Your task to perform on an android device: turn off notifications in google photos Image 0: 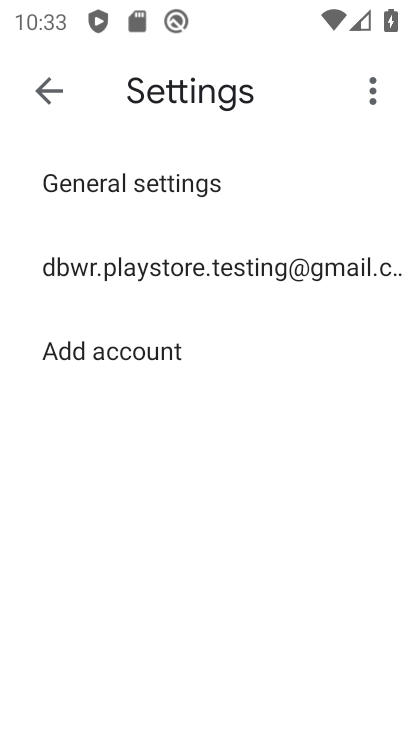
Step 0: press home button
Your task to perform on an android device: turn off notifications in google photos Image 1: 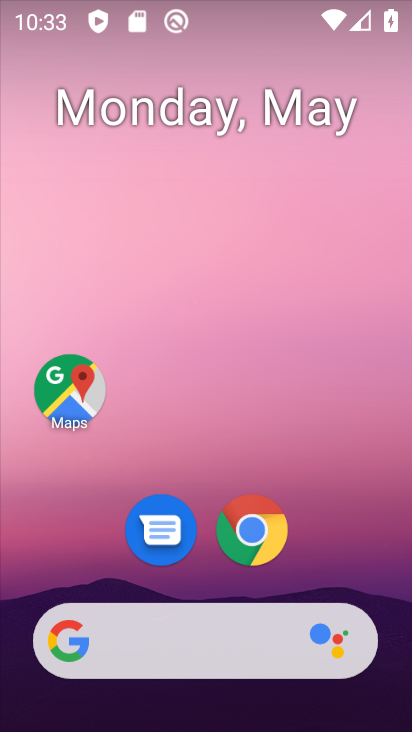
Step 1: drag from (322, 482) to (345, 52)
Your task to perform on an android device: turn off notifications in google photos Image 2: 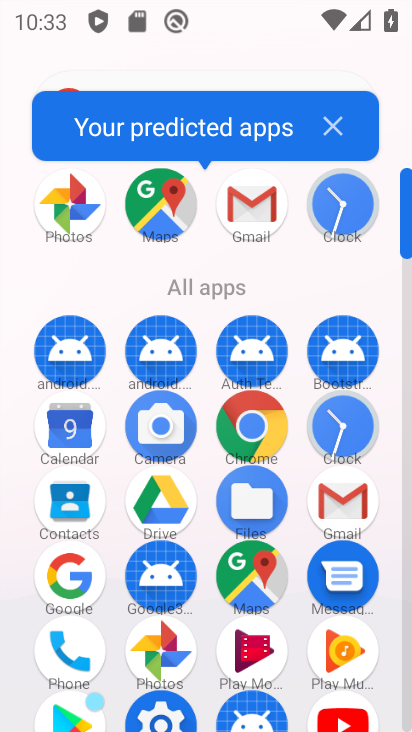
Step 2: drag from (198, 608) to (215, 256)
Your task to perform on an android device: turn off notifications in google photos Image 3: 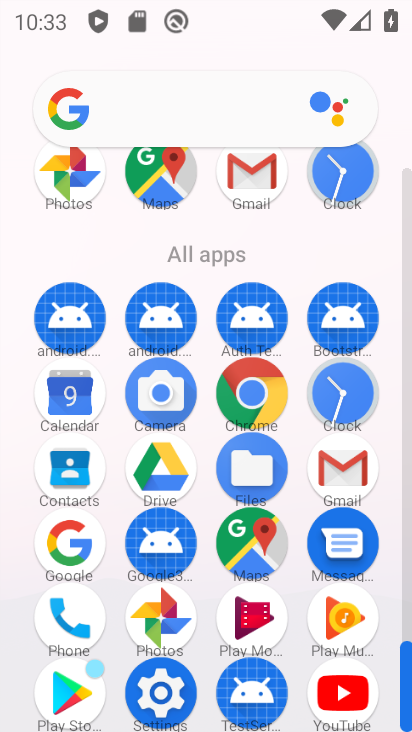
Step 3: click (166, 602)
Your task to perform on an android device: turn off notifications in google photos Image 4: 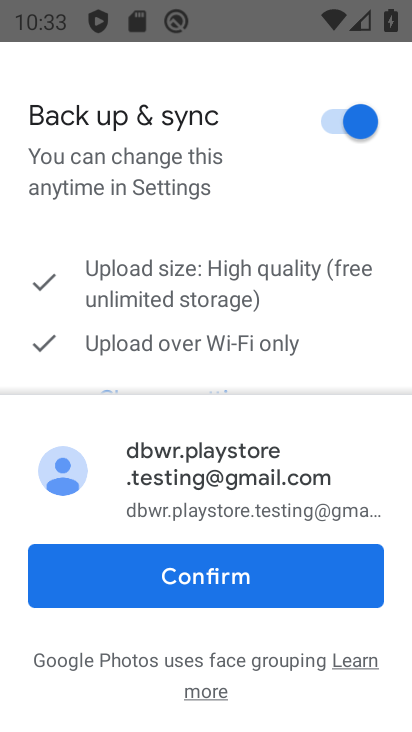
Step 4: click (341, 578)
Your task to perform on an android device: turn off notifications in google photos Image 5: 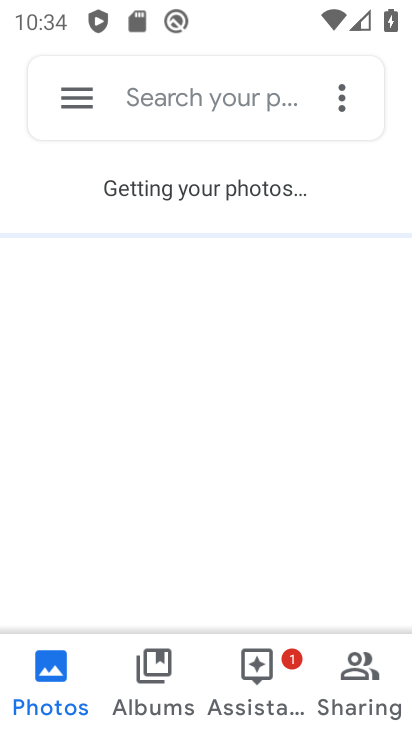
Step 5: click (80, 97)
Your task to perform on an android device: turn off notifications in google photos Image 6: 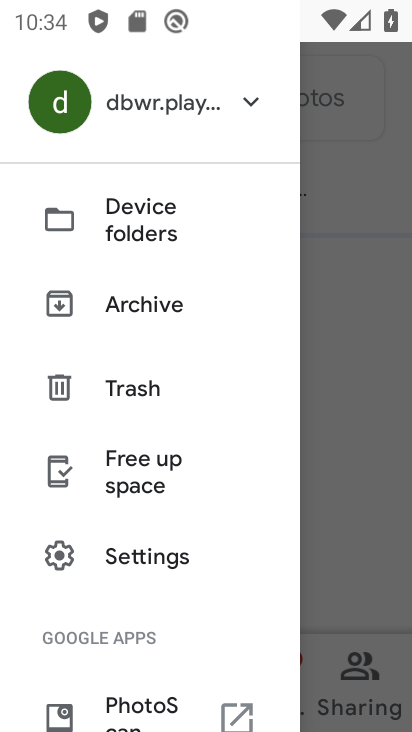
Step 6: click (136, 546)
Your task to perform on an android device: turn off notifications in google photos Image 7: 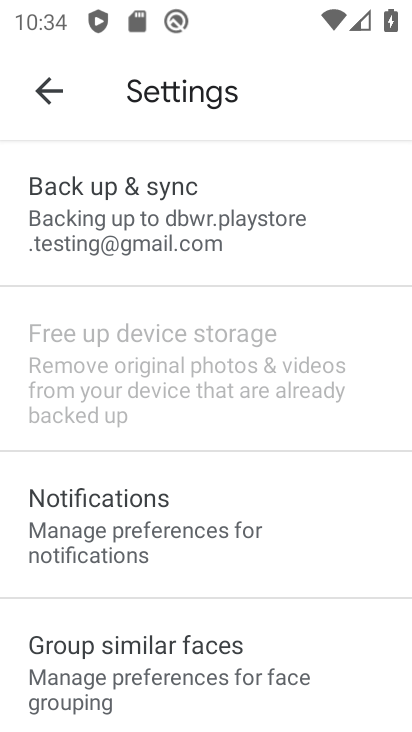
Step 7: click (155, 504)
Your task to perform on an android device: turn off notifications in google photos Image 8: 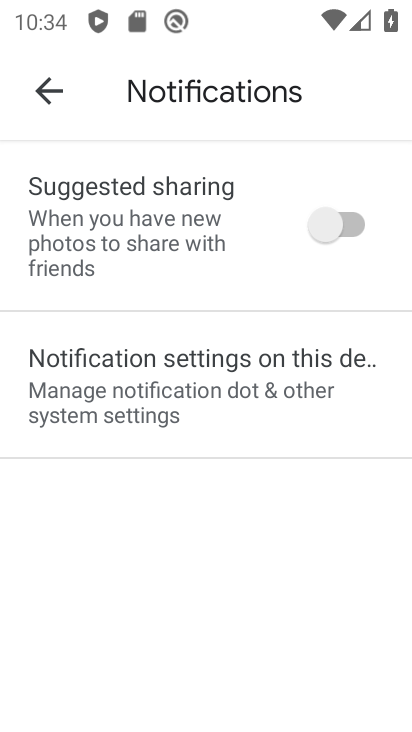
Step 8: task complete